Your task to perform on an android device: Search for Mexican restaurants on Maps Image 0: 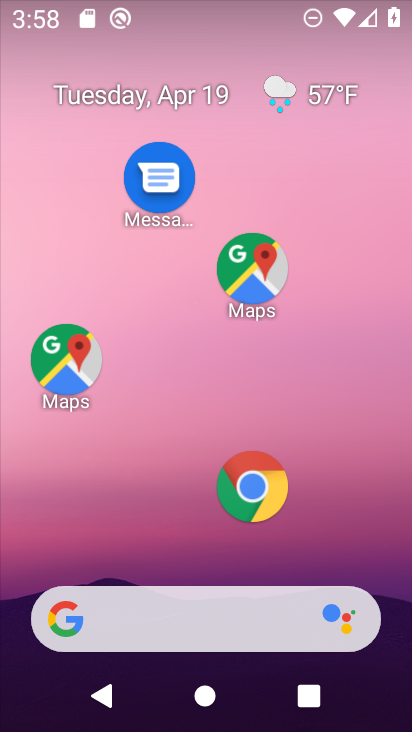
Step 0: drag from (203, 574) to (259, 58)
Your task to perform on an android device: Search for Mexican restaurants on Maps Image 1: 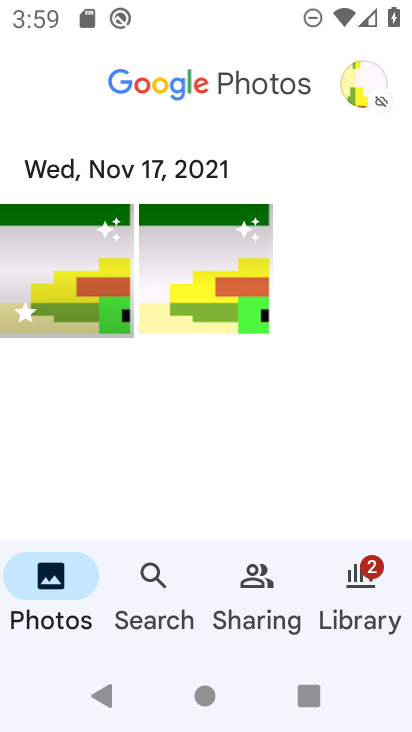
Step 1: press home button
Your task to perform on an android device: Search for Mexican restaurants on Maps Image 2: 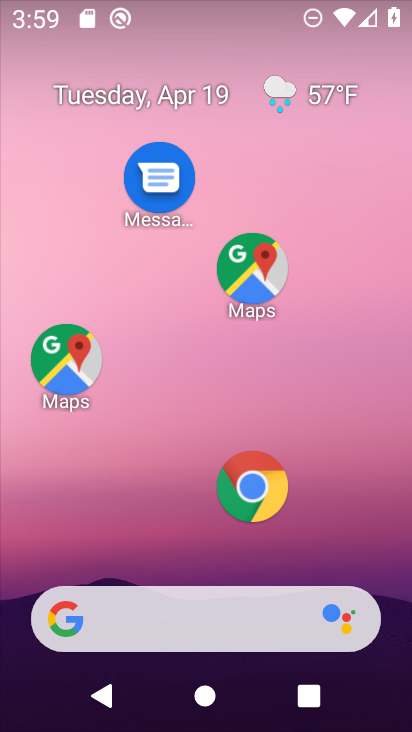
Step 2: click (43, 356)
Your task to perform on an android device: Search for Mexican restaurants on Maps Image 3: 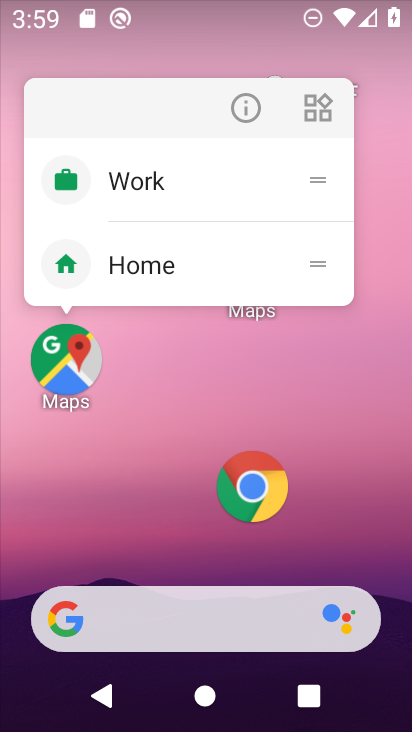
Step 3: click (237, 107)
Your task to perform on an android device: Search for Mexican restaurants on Maps Image 4: 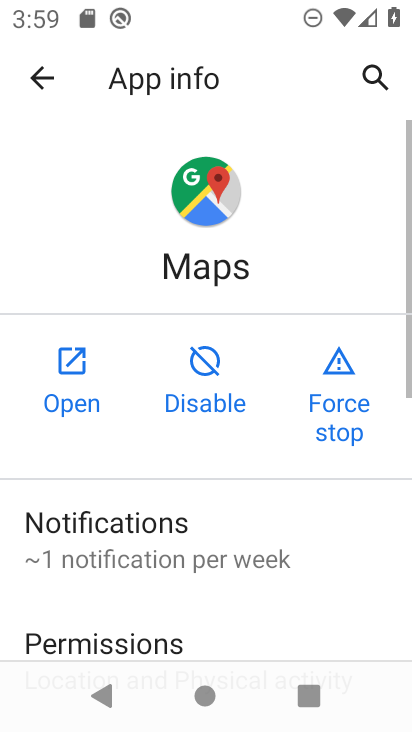
Step 4: click (75, 384)
Your task to perform on an android device: Search for Mexican restaurants on Maps Image 5: 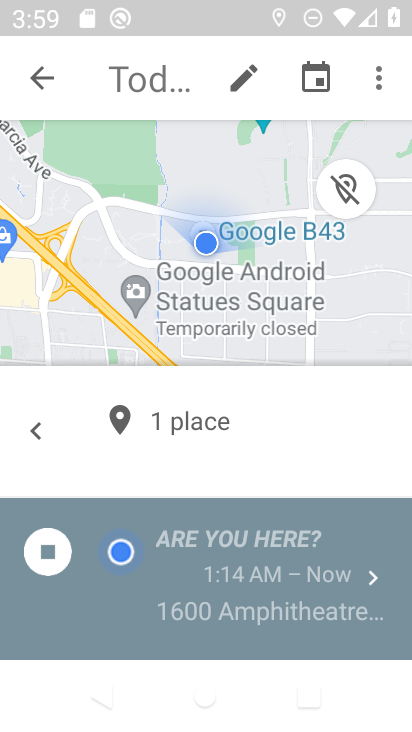
Step 5: click (47, 90)
Your task to perform on an android device: Search for Mexican restaurants on Maps Image 6: 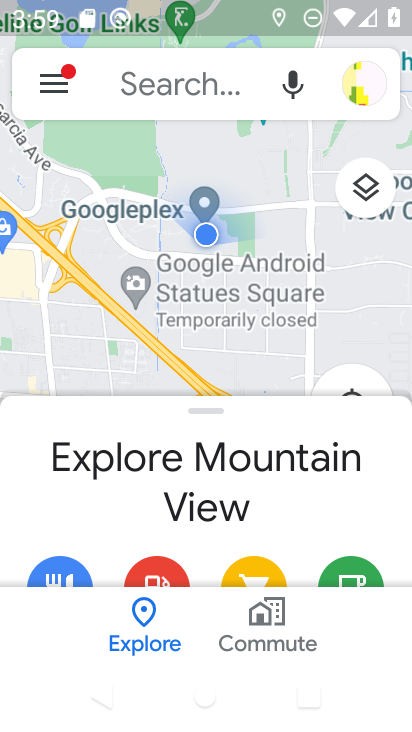
Step 6: click (174, 98)
Your task to perform on an android device: Search for Mexican restaurants on Maps Image 7: 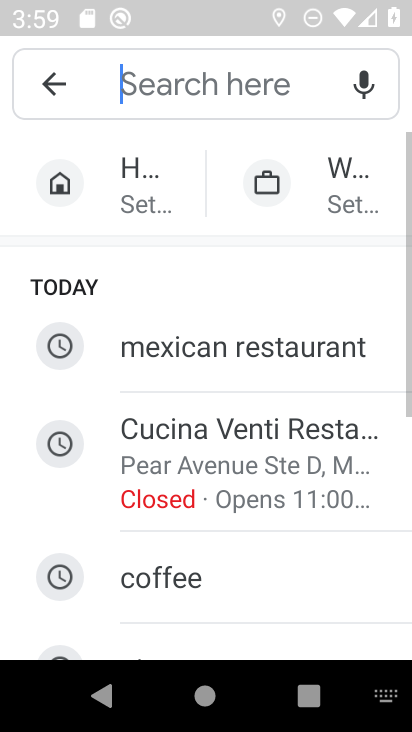
Step 7: click (203, 337)
Your task to perform on an android device: Search for Mexican restaurants on Maps Image 8: 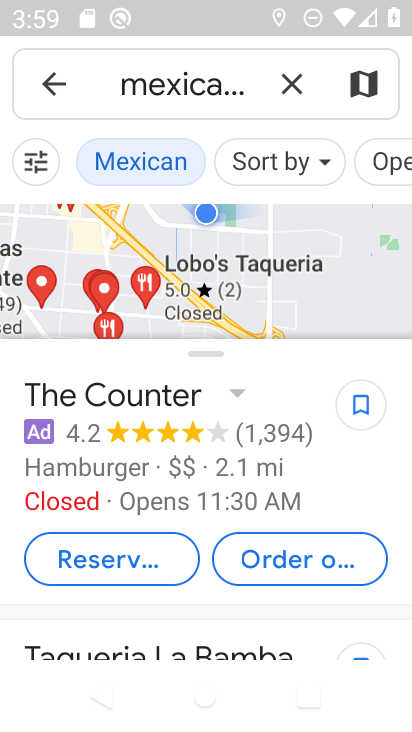
Step 8: task complete